Your task to perform on an android device: toggle notifications settings in the gmail app Image 0: 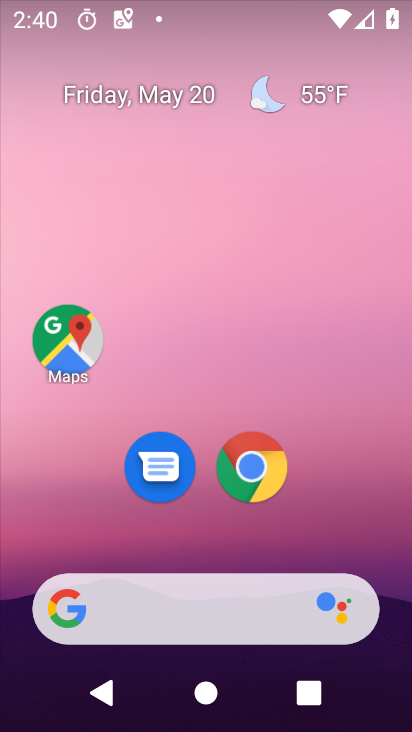
Step 0: drag from (208, 523) to (170, 33)
Your task to perform on an android device: toggle notifications settings in the gmail app Image 1: 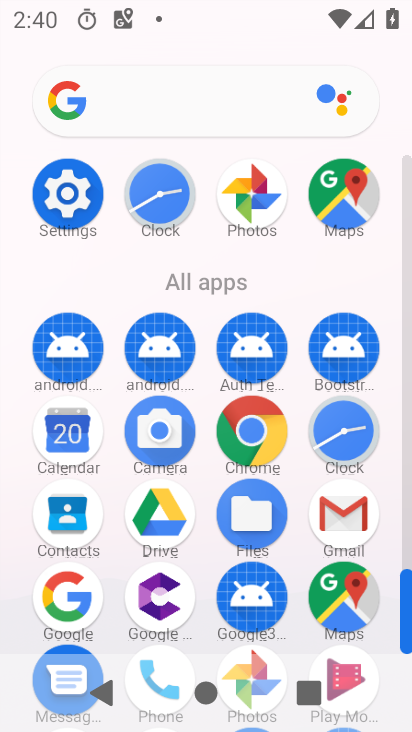
Step 1: click (341, 516)
Your task to perform on an android device: toggle notifications settings in the gmail app Image 2: 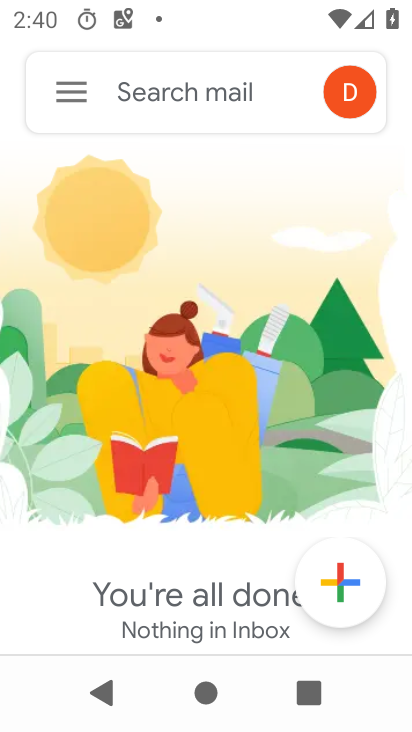
Step 2: click (79, 94)
Your task to perform on an android device: toggle notifications settings in the gmail app Image 3: 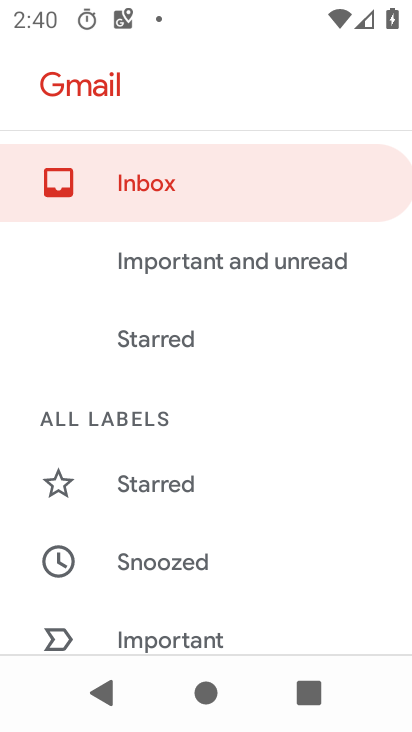
Step 3: drag from (128, 653) to (100, 277)
Your task to perform on an android device: toggle notifications settings in the gmail app Image 4: 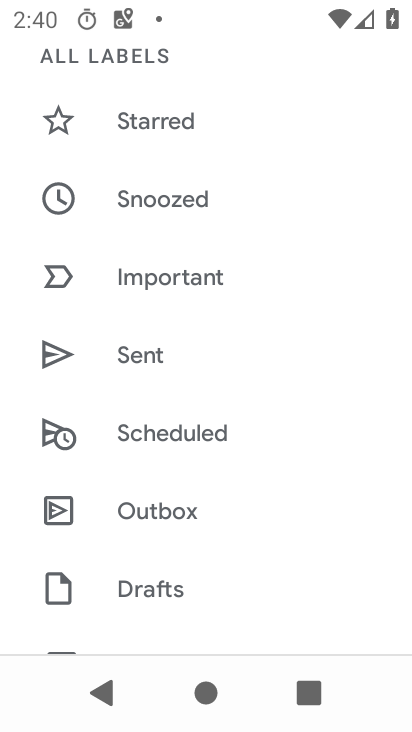
Step 4: drag from (230, 611) to (231, 143)
Your task to perform on an android device: toggle notifications settings in the gmail app Image 5: 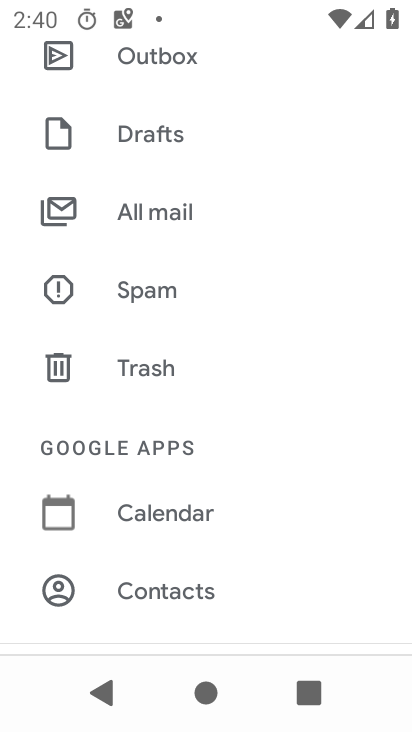
Step 5: drag from (162, 604) to (161, 180)
Your task to perform on an android device: toggle notifications settings in the gmail app Image 6: 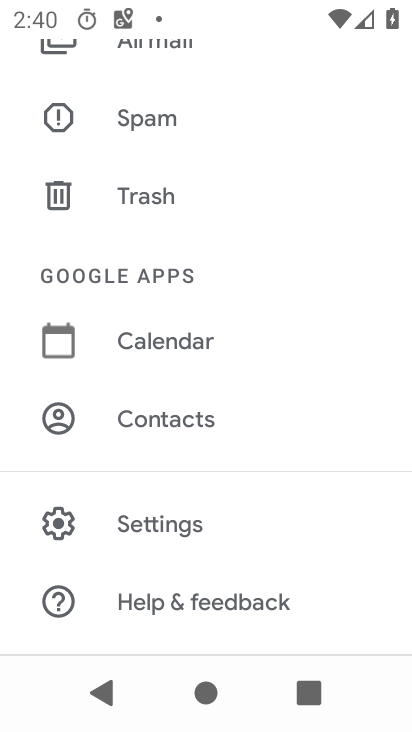
Step 6: click (171, 501)
Your task to perform on an android device: toggle notifications settings in the gmail app Image 7: 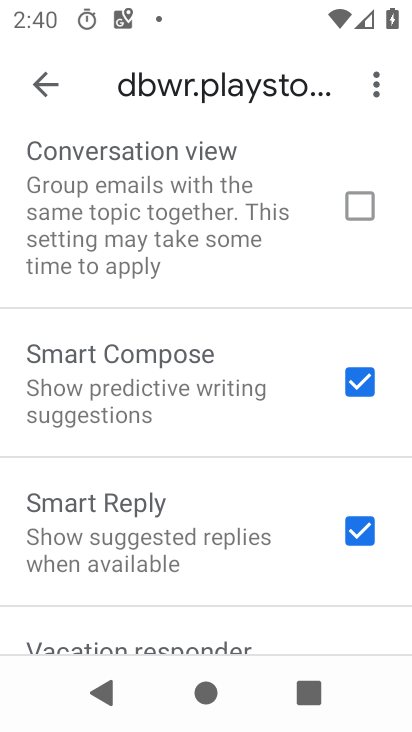
Step 7: drag from (169, 612) to (174, 259)
Your task to perform on an android device: toggle notifications settings in the gmail app Image 8: 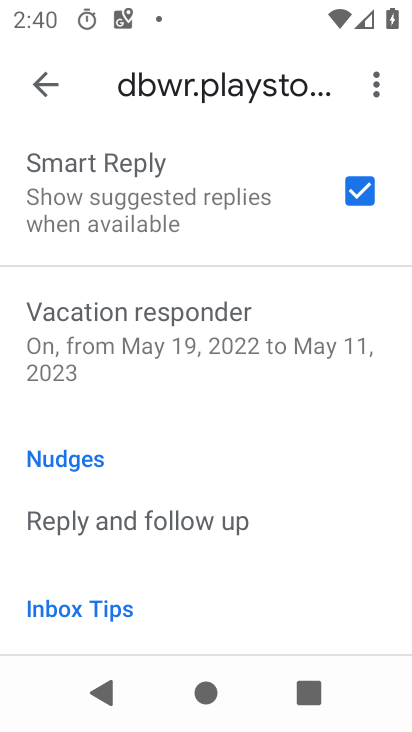
Step 8: drag from (103, 158) to (162, 679)
Your task to perform on an android device: toggle notifications settings in the gmail app Image 9: 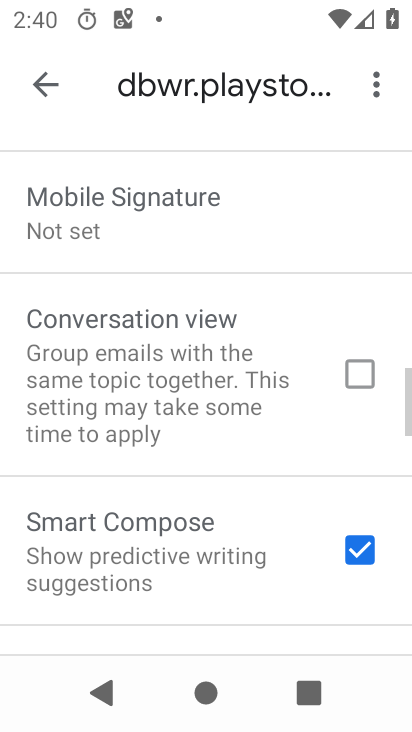
Step 9: drag from (70, 230) to (77, 490)
Your task to perform on an android device: toggle notifications settings in the gmail app Image 10: 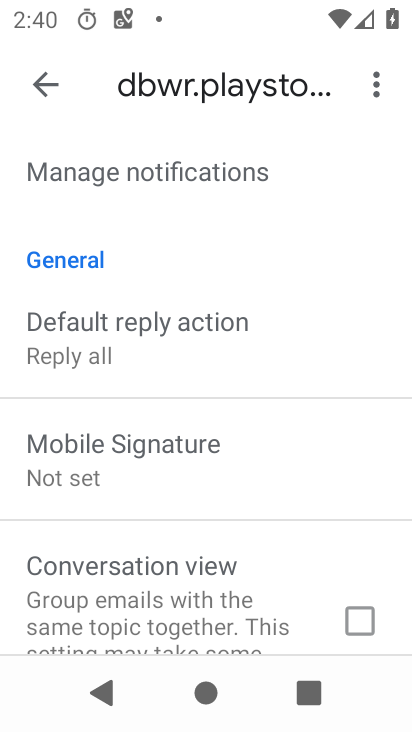
Step 10: click (162, 180)
Your task to perform on an android device: toggle notifications settings in the gmail app Image 11: 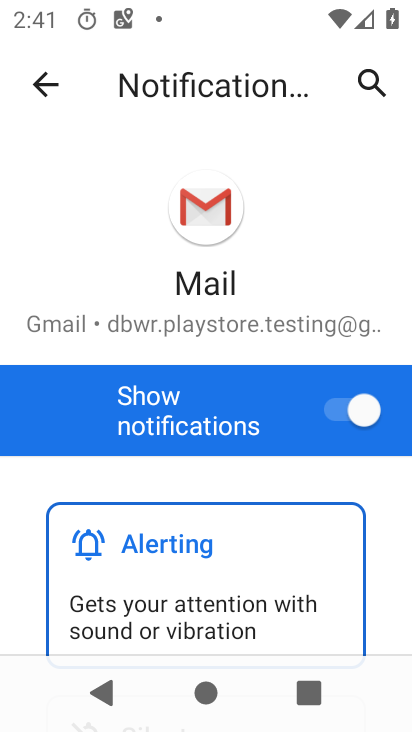
Step 11: click (374, 431)
Your task to perform on an android device: toggle notifications settings in the gmail app Image 12: 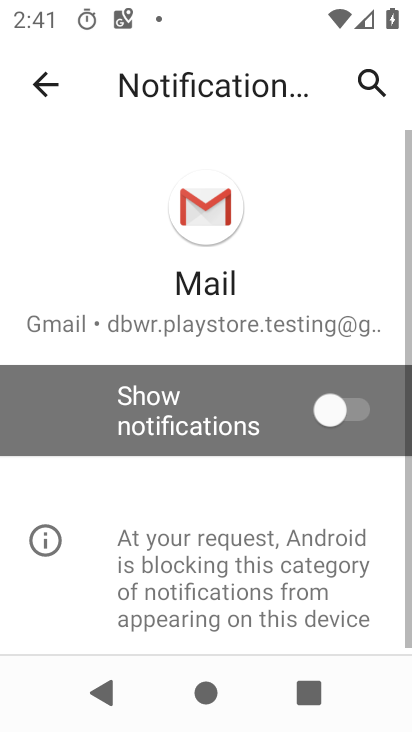
Step 12: task complete